Your task to perform on an android device: turn on javascript in the chrome app Image 0: 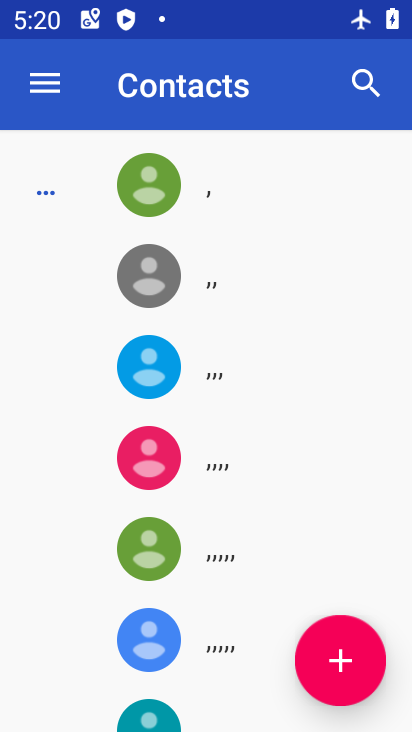
Step 0: press home button
Your task to perform on an android device: turn on javascript in the chrome app Image 1: 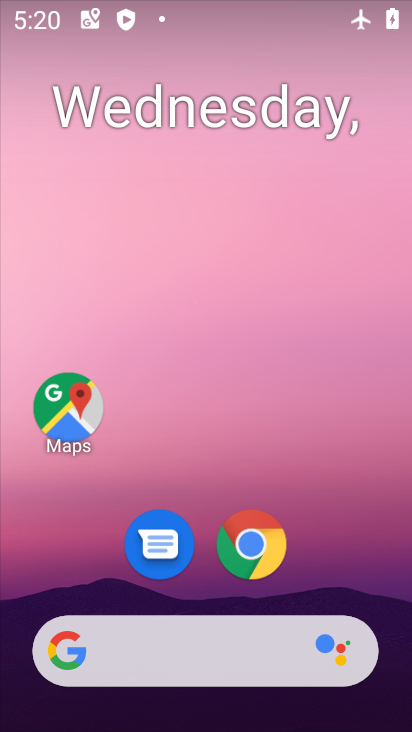
Step 1: drag from (401, 513) to (336, 103)
Your task to perform on an android device: turn on javascript in the chrome app Image 2: 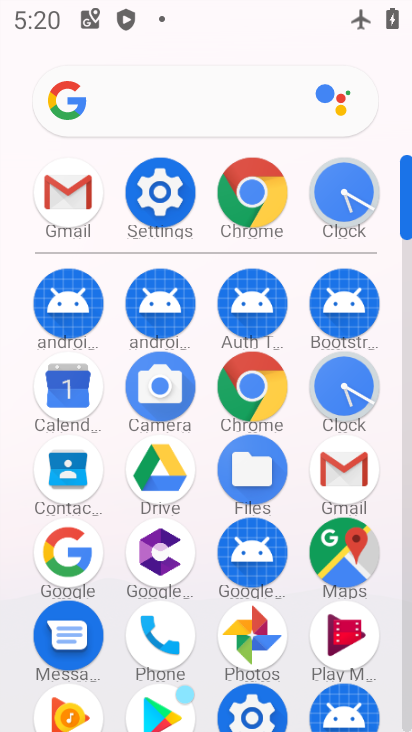
Step 2: click (254, 201)
Your task to perform on an android device: turn on javascript in the chrome app Image 3: 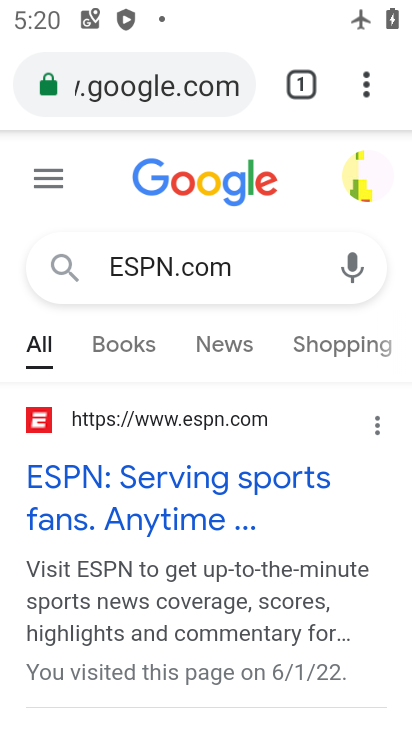
Step 3: click (367, 81)
Your task to perform on an android device: turn on javascript in the chrome app Image 4: 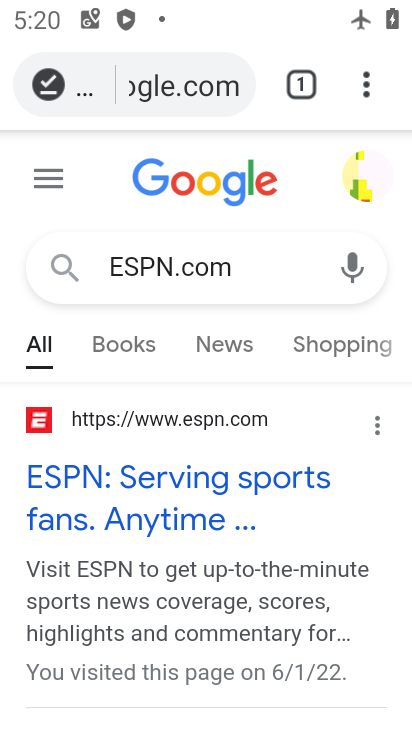
Step 4: click (367, 81)
Your task to perform on an android device: turn on javascript in the chrome app Image 5: 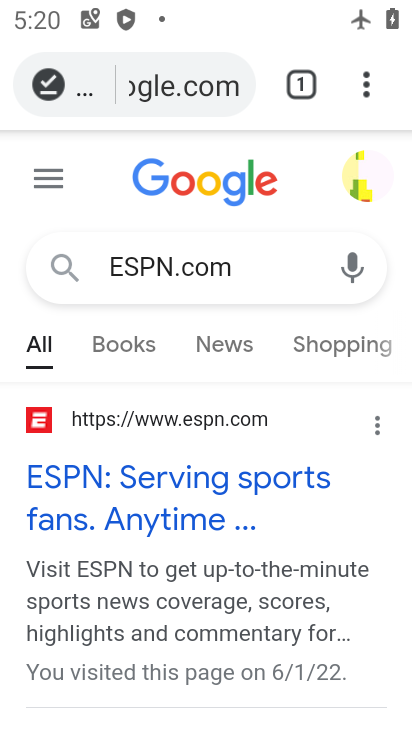
Step 5: click (367, 81)
Your task to perform on an android device: turn on javascript in the chrome app Image 6: 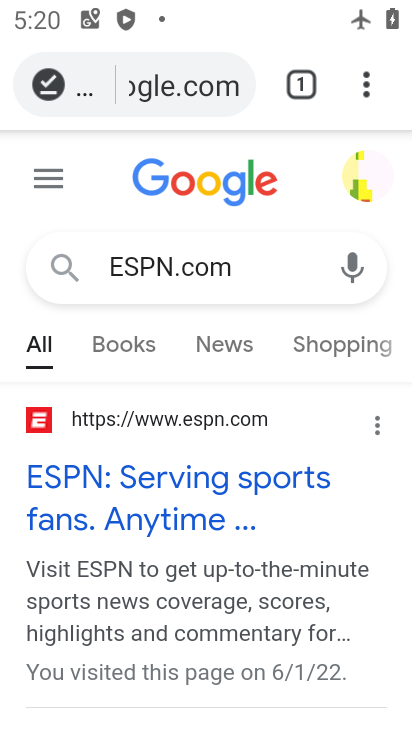
Step 6: click (361, 83)
Your task to perform on an android device: turn on javascript in the chrome app Image 7: 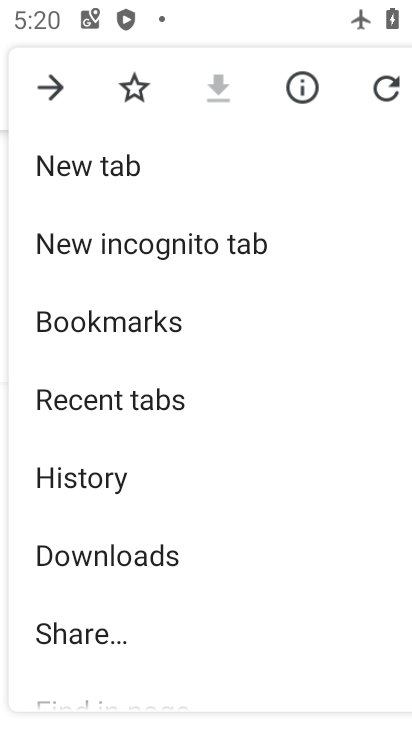
Step 7: drag from (282, 626) to (314, 229)
Your task to perform on an android device: turn on javascript in the chrome app Image 8: 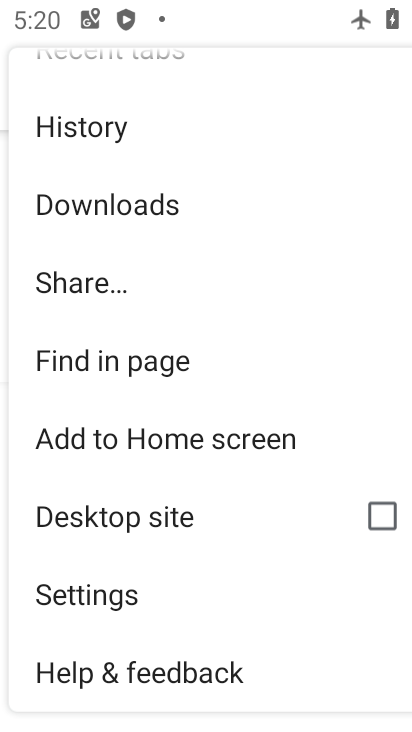
Step 8: click (105, 596)
Your task to perform on an android device: turn on javascript in the chrome app Image 9: 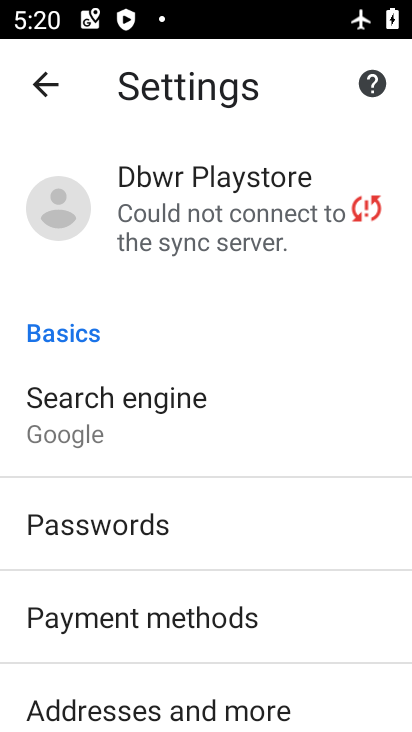
Step 9: drag from (306, 694) to (314, 280)
Your task to perform on an android device: turn on javascript in the chrome app Image 10: 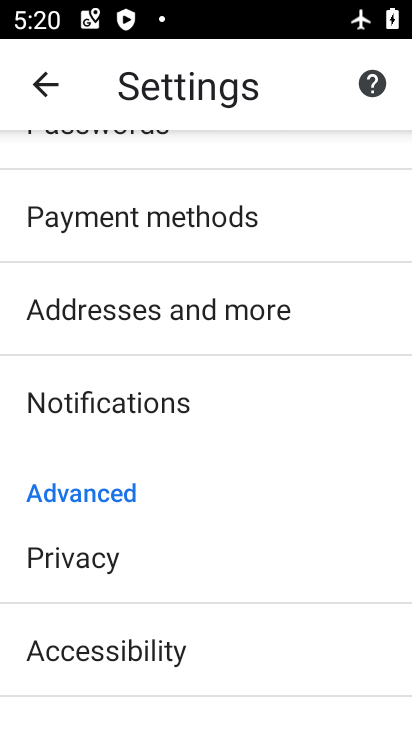
Step 10: drag from (258, 638) to (277, 303)
Your task to perform on an android device: turn on javascript in the chrome app Image 11: 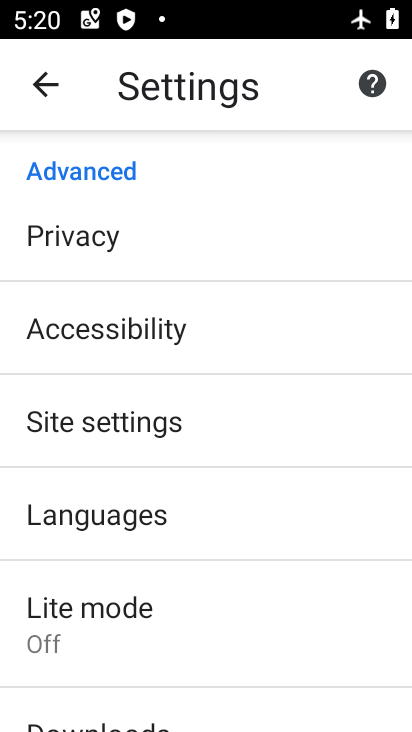
Step 11: click (100, 421)
Your task to perform on an android device: turn on javascript in the chrome app Image 12: 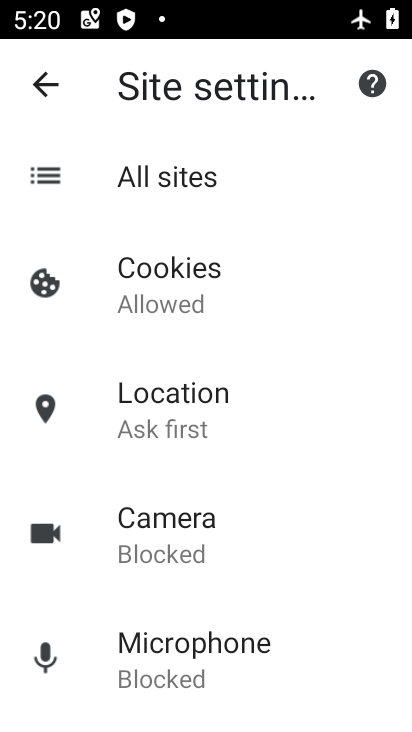
Step 12: drag from (328, 666) to (331, 274)
Your task to perform on an android device: turn on javascript in the chrome app Image 13: 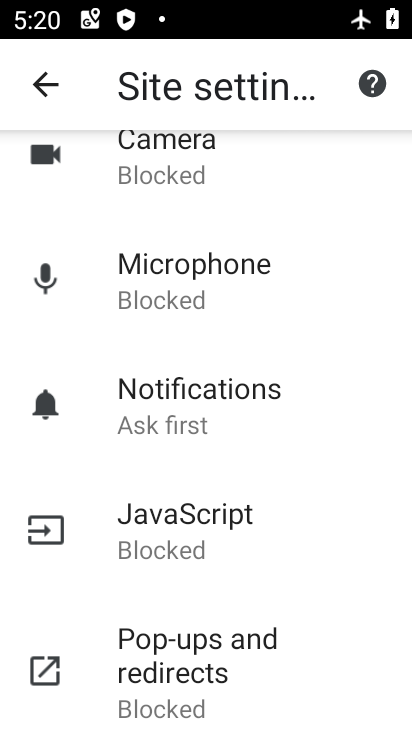
Step 13: click (187, 530)
Your task to perform on an android device: turn on javascript in the chrome app Image 14: 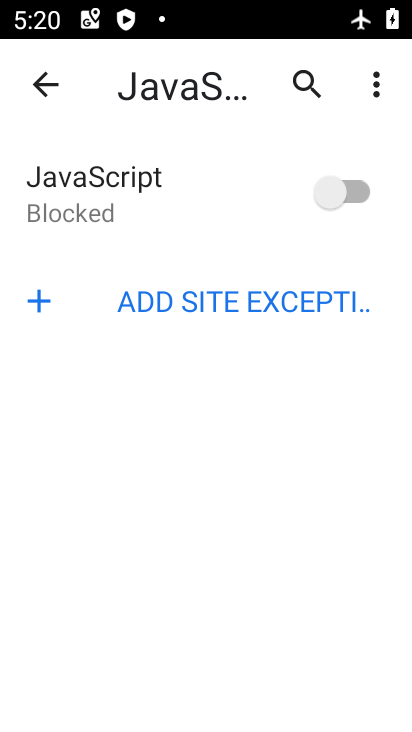
Step 14: click (352, 199)
Your task to perform on an android device: turn on javascript in the chrome app Image 15: 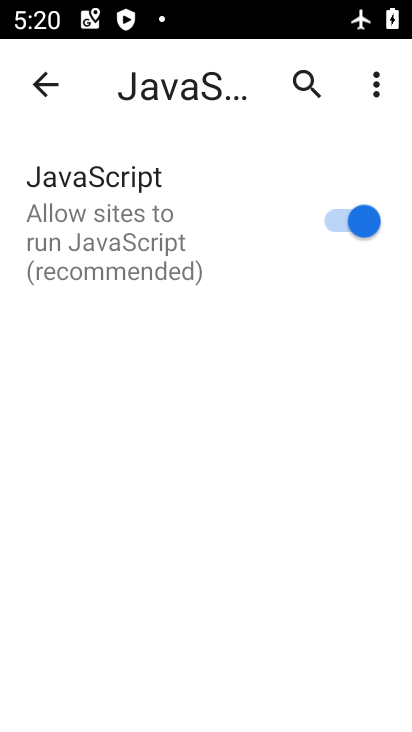
Step 15: task complete